Your task to perform on an android device: Go to Google maps Image 0: 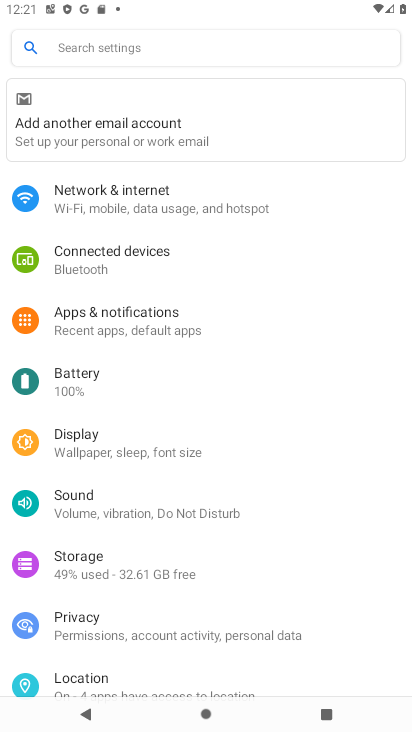
Step 0: press home button
Your task to perform on an android device: Go to Google maps Image 1: 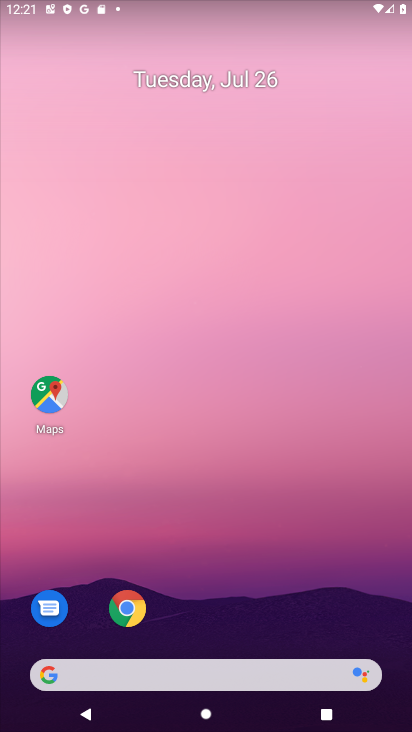
Step 1: click (36, 405)
Your task to perform on an android device: Go to Google maps Image 2: 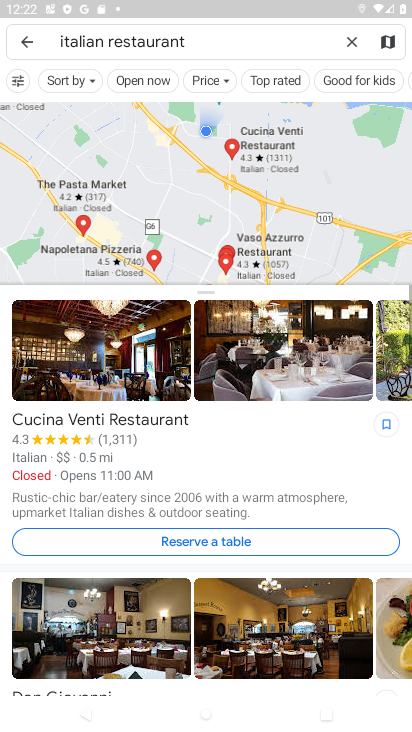
Step 2: task complete